Your task to perform on an android device: snooze an email in the gmail app Image 0: 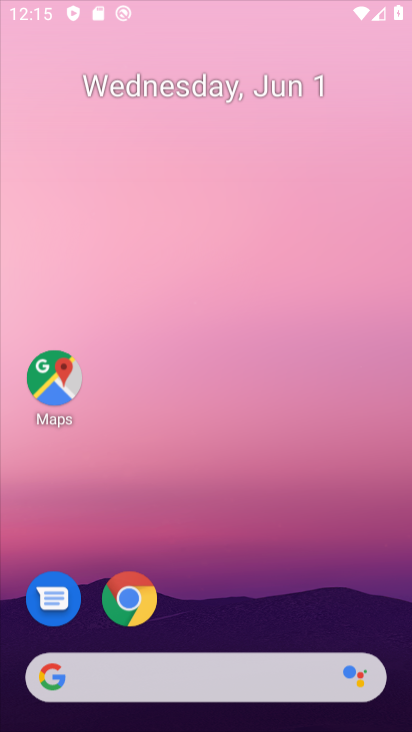
Step 0: press home button
Your task to perform on an android device: snooze an email in the gmail app Image 1: 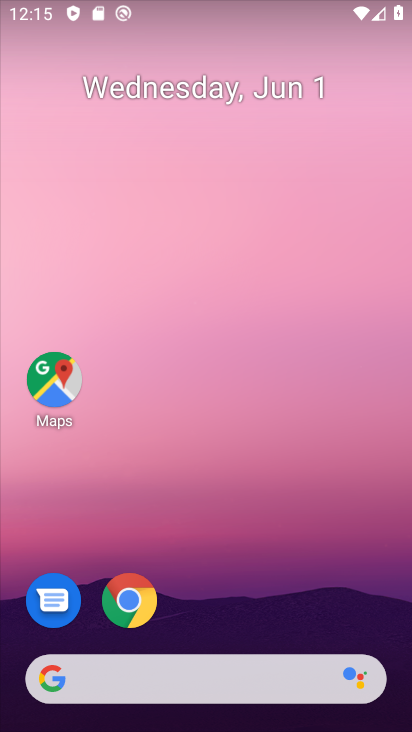
Step 1: drag from (231, 618) to (247, 22)
Your task to perform on an android device: snooze an email in the gmail app Image 2: 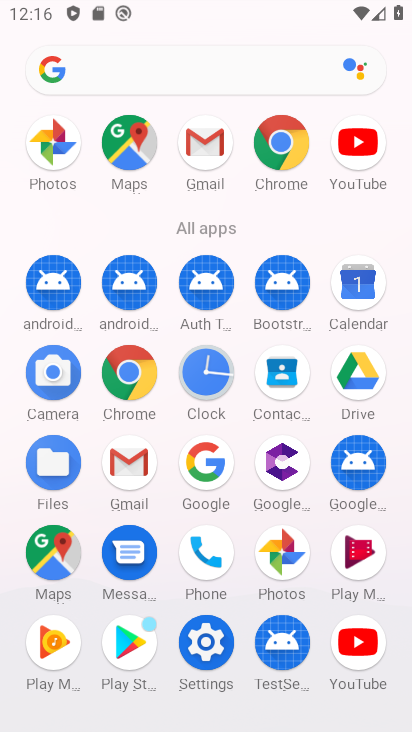
Step 2: click (123, 453)
Your task to perform on an android device: snooze an email in the gmail app Image 3: 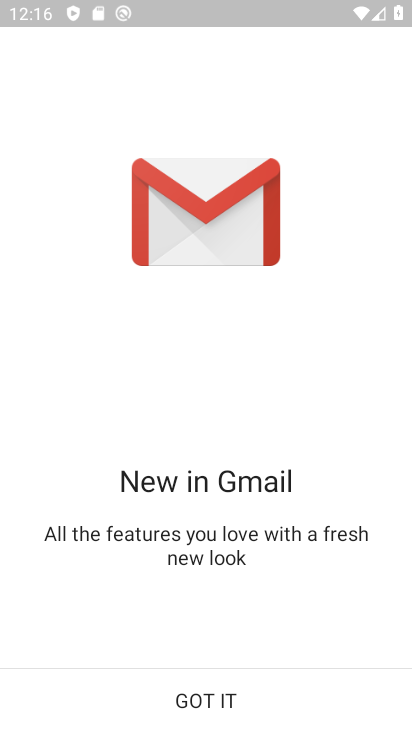
Step 3: click (198, 708)
Your task to perform on an android device: snooze an email in the gmail app Image 4: 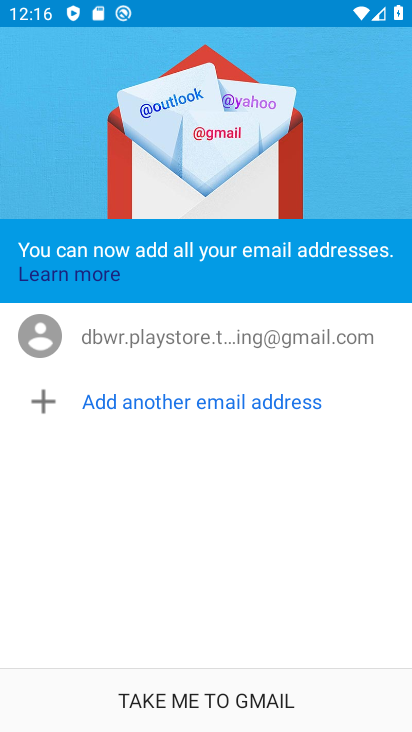
Step 4: click (208, 701)
Your task to perform on an android device: snooze an email in the gmail app Image 5: 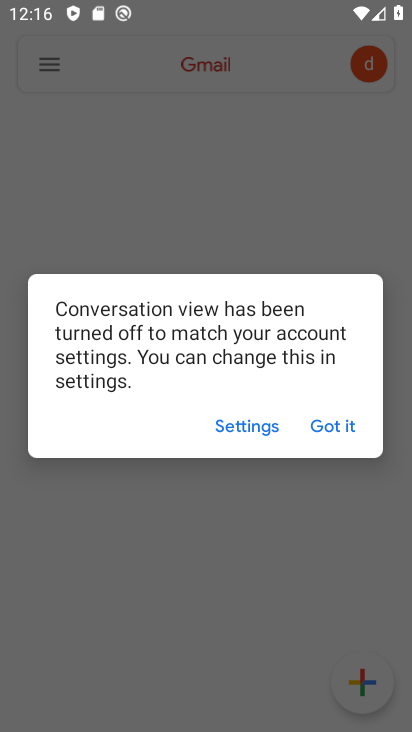
Step 5: click (333, 423)
Your task to perform on an android device: snooze an email in the gmail app Image 6: 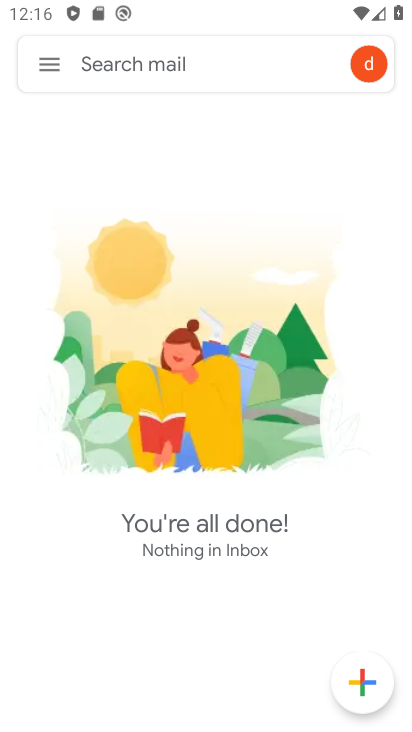
Step 6: task complete